Your task to perform on an android device: toggle show notifications on the lock screen Image 0: 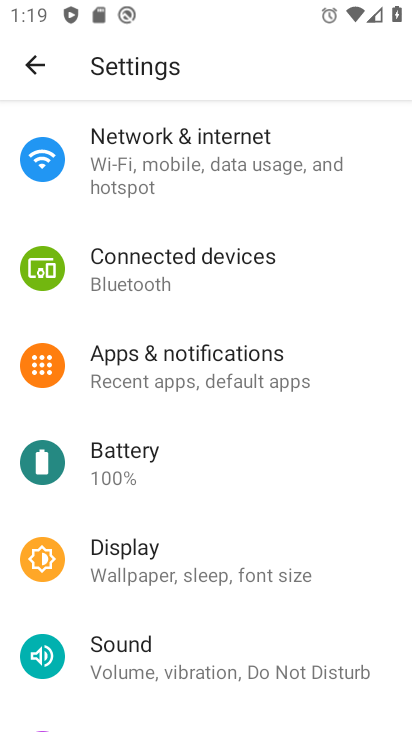
Step 0: press home button
Your task to perform on an android device: toggle show notifications on the lock screen Image 1: 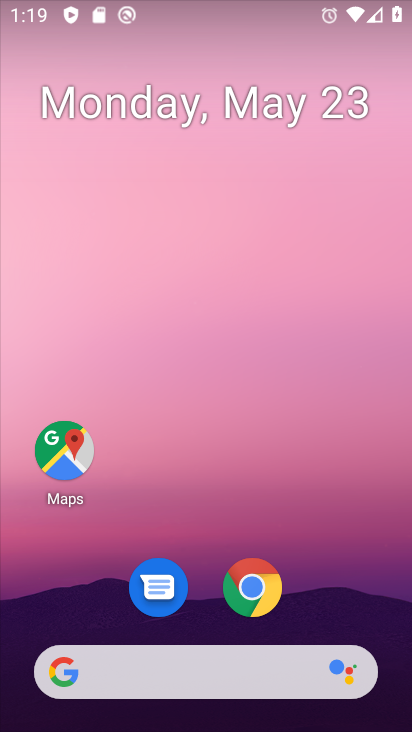
Step 1: drag from (329, 598) to (323, 288)
Your task to perform on an android device: toggle show notifications on the lock screen Image 2: 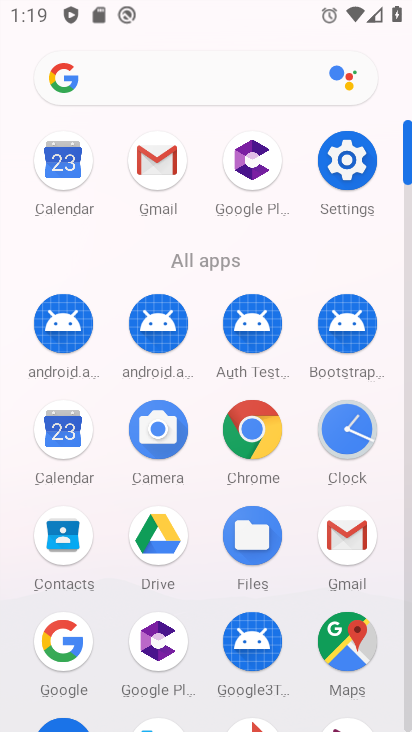
Step 2: click (356, 155)
Your task to perform on an android device: toggle show notifications on the lock screen Image 3: 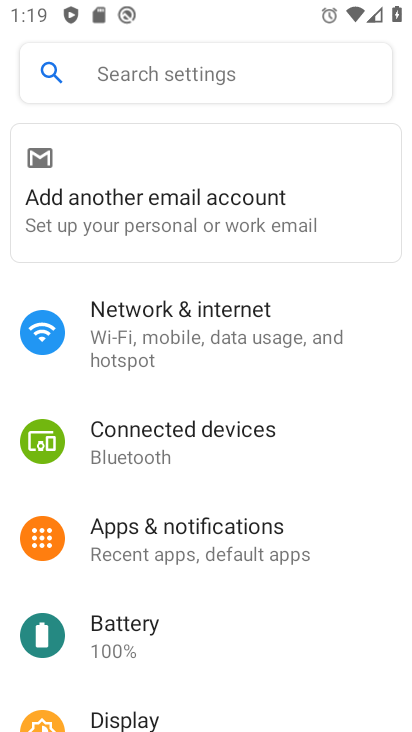
Step 3: drag from (176, 543) to (186, 360)
Your task to perform on an android device: toggle show notifications on the lock screen Image 4: 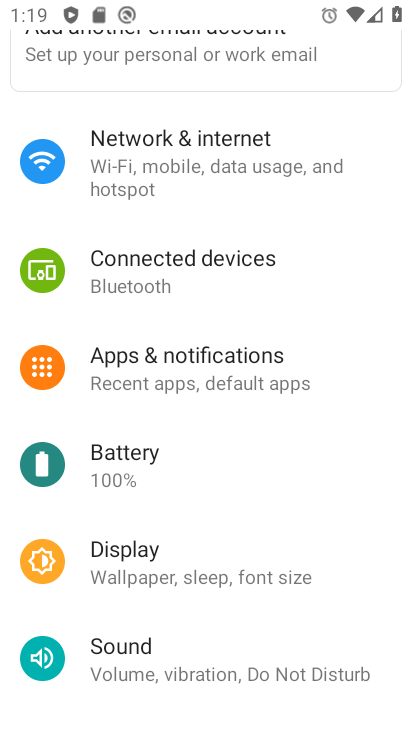
Step 4: drag from (218, 574) to (232, 230)
Your task to perform on an android device: toggle show notifications on the lock screen Image 5: 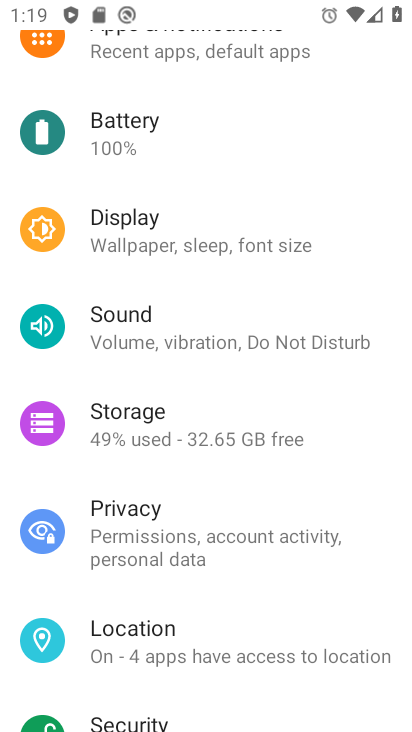
Step 5: click (253, 645)
Your task to perform on an android device: toggle show notifications on the lock screen Image 6: 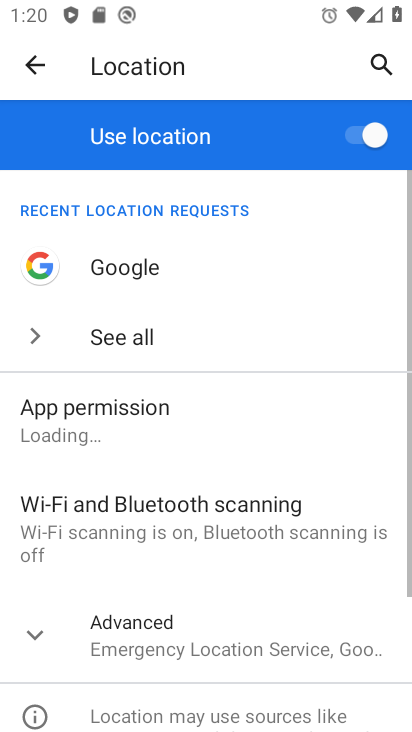
Step 6: drag from (253, 645) to (262, 342)
Your task to perform on an android device: toggle show notifications on the lock screen Image 7: 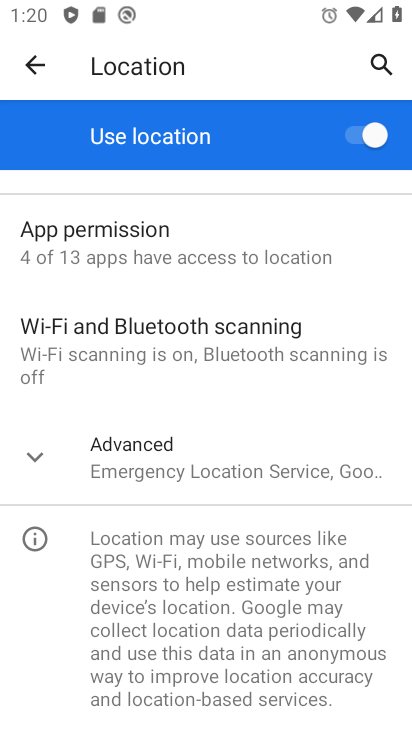
Step 7: click (233, 487)
Your task to perform on an android device: toggle show notifications on the lock screen Image 8: 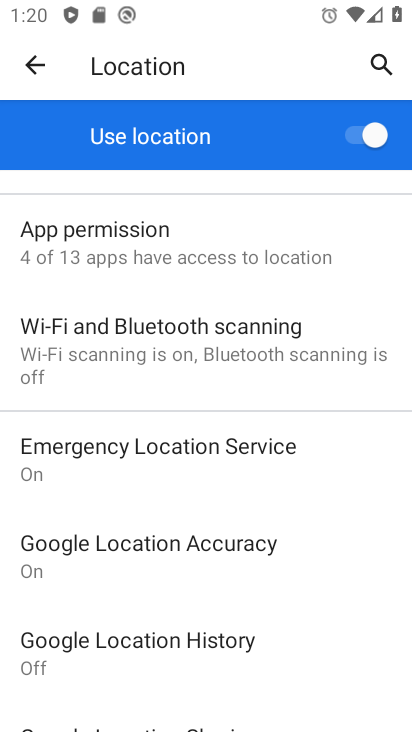
Step 8: click (29, 85)
Your task to perform on an android device: toggle show notifications on the lock screen Image 9: 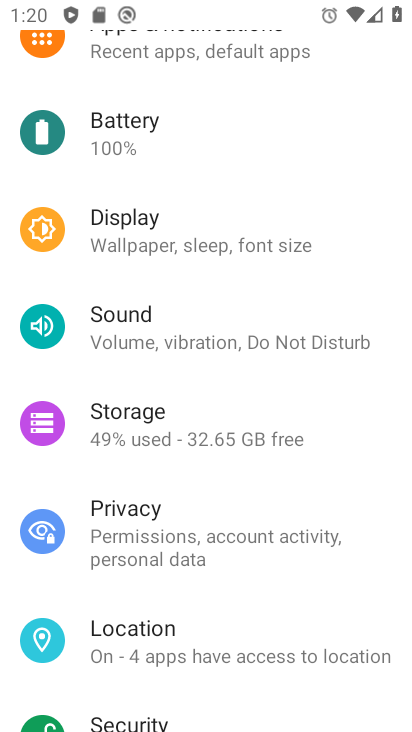
Step 9: drag from (186, 251) to (210, 513)
Your task to perform on an android device: toggle show notifications on the lock screen Image 10: 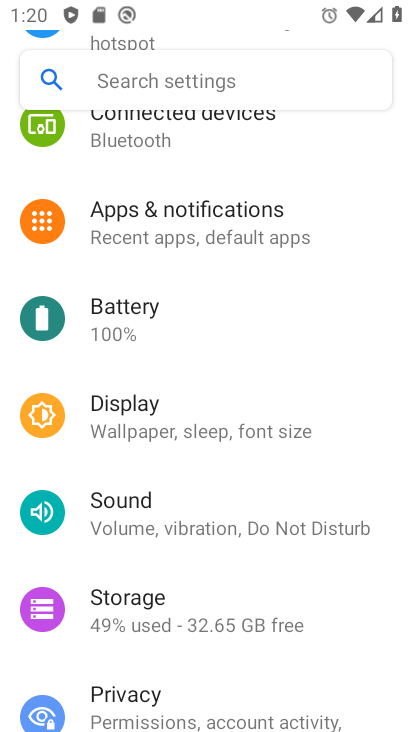
Step 10: drag from (210, 294) to (226, 629)
Your task to perform on an android device: toggle show notifications on the lock screen Image 11: 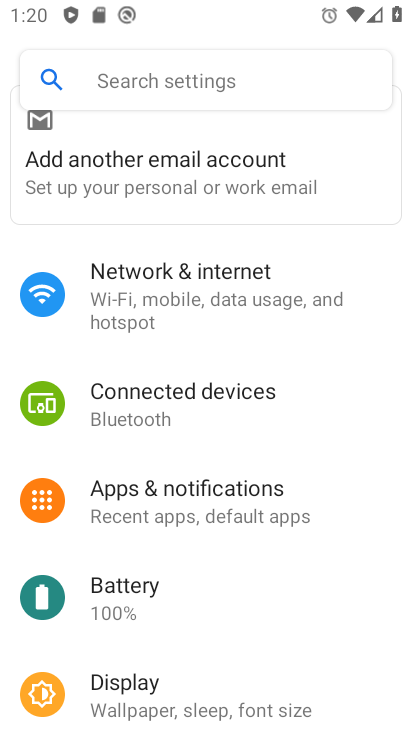
Step 11: click (255, 527)
Your task to perform on an android device: toggle show notifications on the lock screen Image 12: 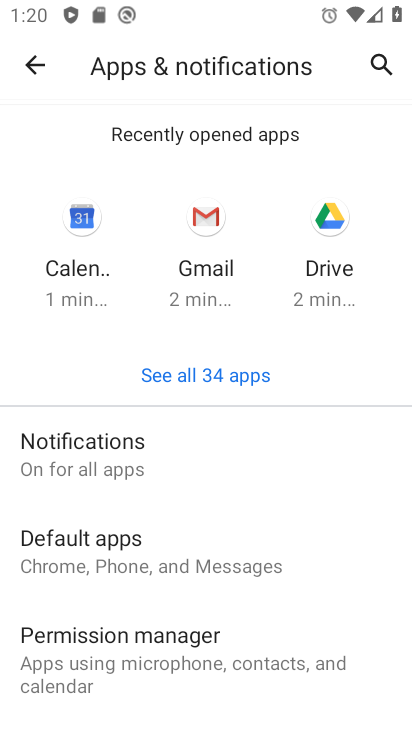
Step 12: drag from (217, 594) to (250, 308)
Your task to perform on an android device: toggle show notifications on the lock screen Image 13: 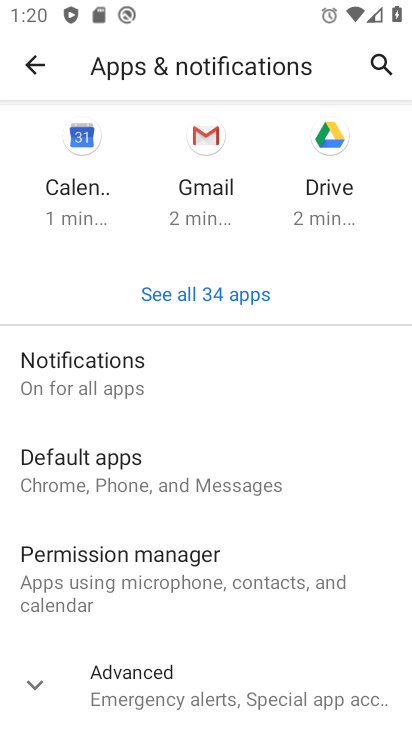
Step 13: click (198, 382)
Your task to perform on an android device: toggle show notifications on the lock screen Image 14: 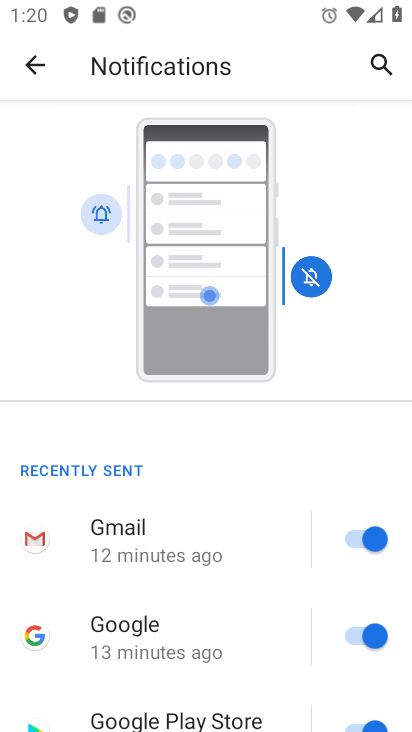
Step 14: drag from (201, 644) to (241, 252)
Your task to perform on an android device: toggle show notifications on the lock screen Image 15: 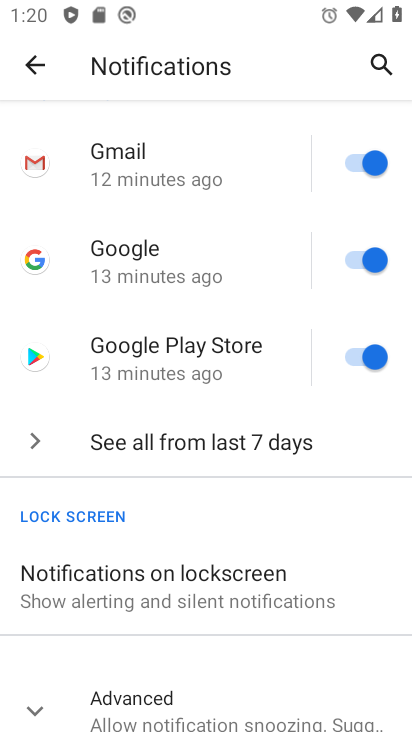
Step 15: drag from (196, 685) to (204, 327)
Your task to perform on an android device: toggle show notifications on the lock screen Image 16: 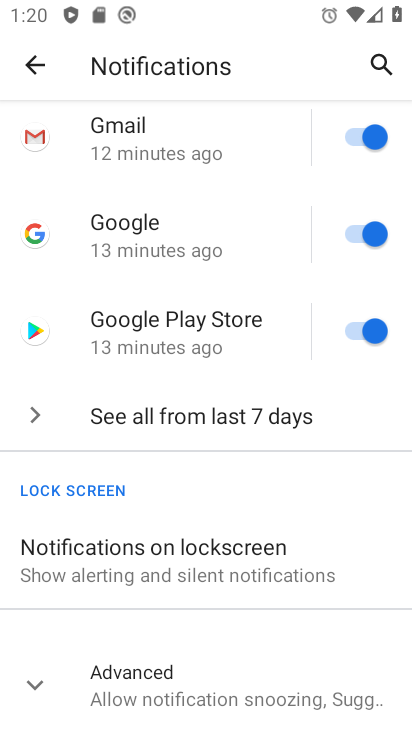
Step 16: click (168, 534)
Your task to perform on an android device: toggle show notifications on the lock screen Image 17: 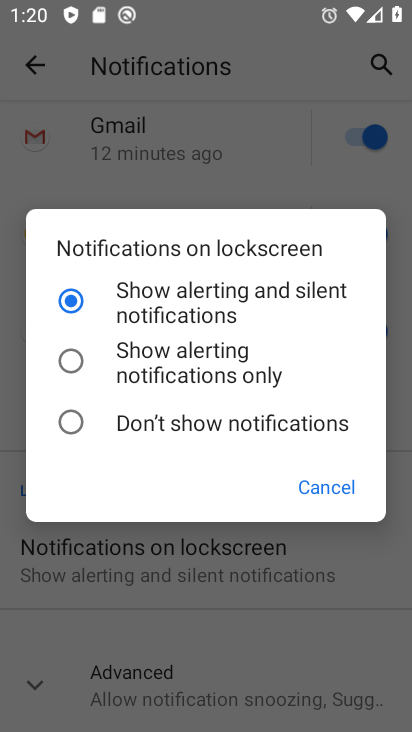
Step 17: click (210, 369)
Your task to perform on an android device: toggle show notifications on the lock screen Image 18: 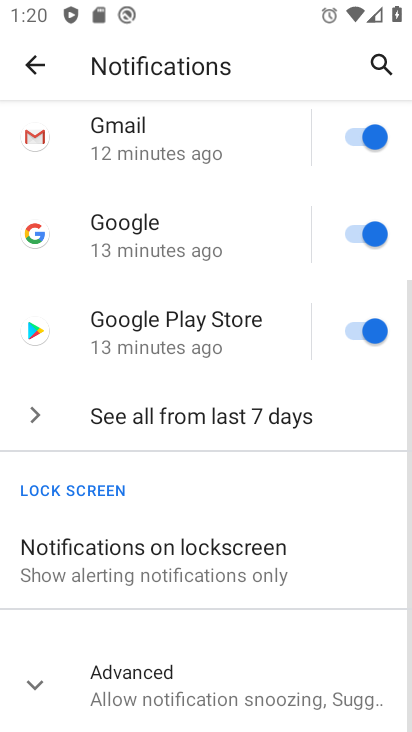
Step 18: task complete